Your task to perform on an android device: Go to battery settings Image 0: 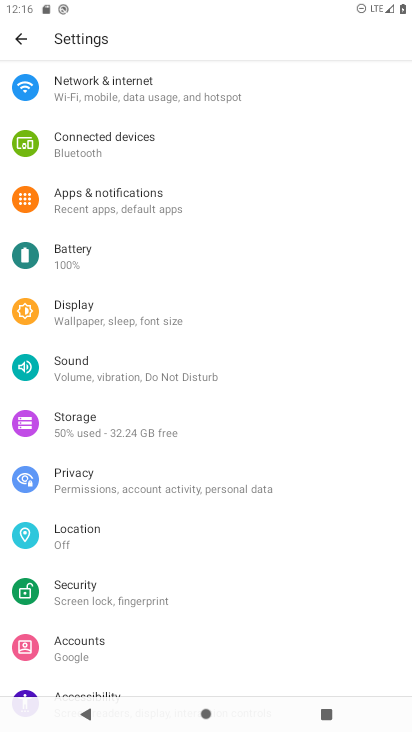
Step 0: click (84, 255)
Your task to perform on an android device: Go to battery settings Image 1: 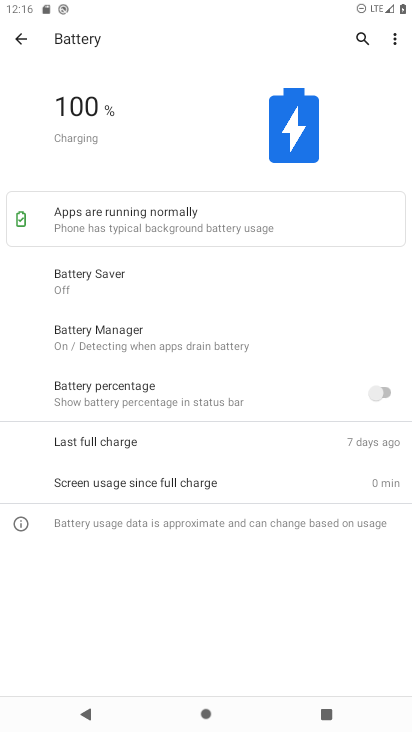
Step 1: task complete